Your task to perform on an android device: open the mobile data screen to see how much data has been used Image 0: 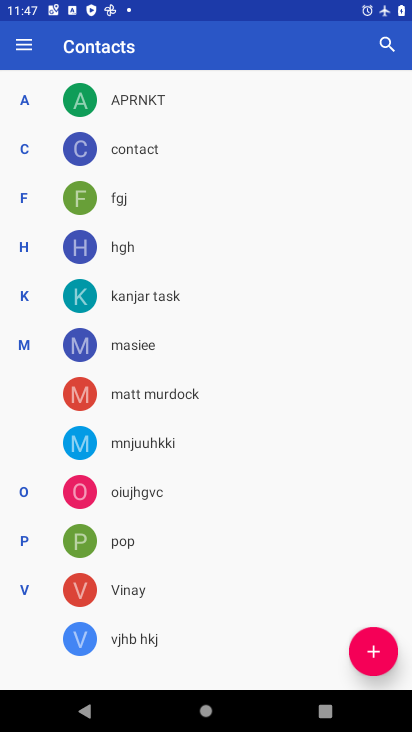
Step 0: press home button
Your task to perform on an android device: open the mobile data screen to see how much data has been used Image 1: 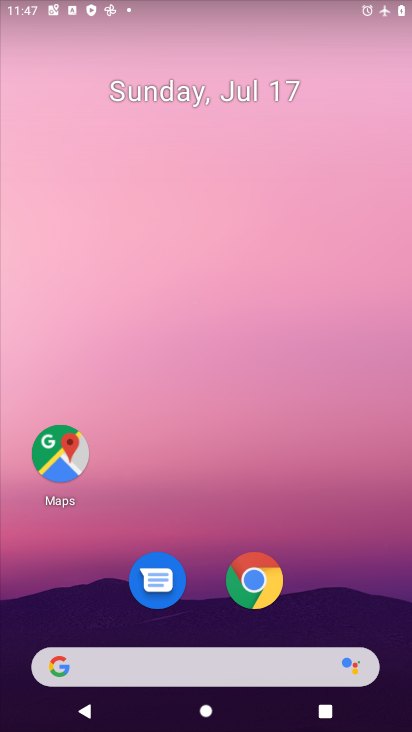
Step 1: drag from (185, 672) to (189, 270)
Your task to perform on an android device: open the mobile data screen to see how much data has been used Image 2: 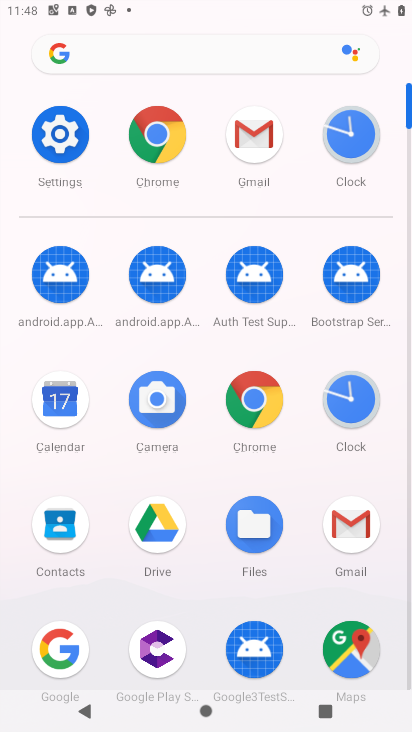
Step 2: click (55, 134)
Your task to perform on an android device: open the mobile data screen to see how much data has been used Image 3: 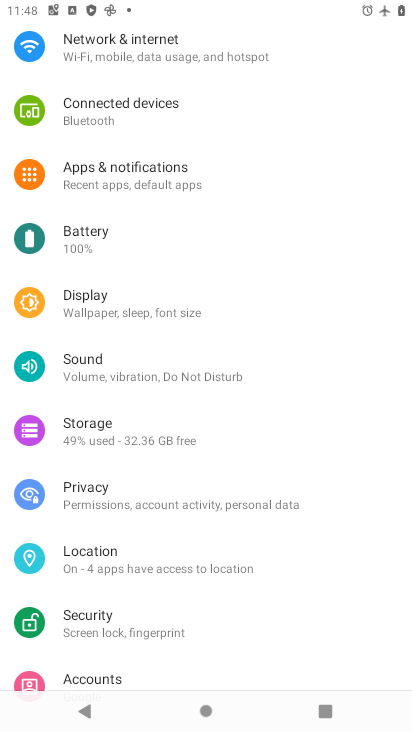
Step 3: drag from (159, 261) to (140, 632)
Your task to perform on an android device: open the mobile data screen to see how much data has been used Image 4: 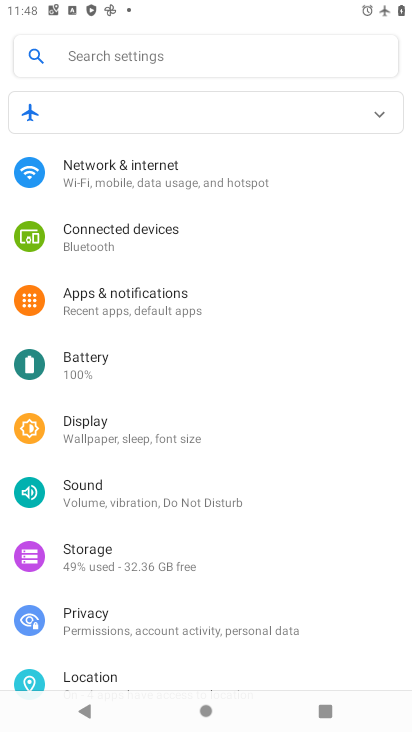
Step 4: click (168, 176)
Your task to perform on an android device: open the mobile data screen to see how much data has been used Image 5: 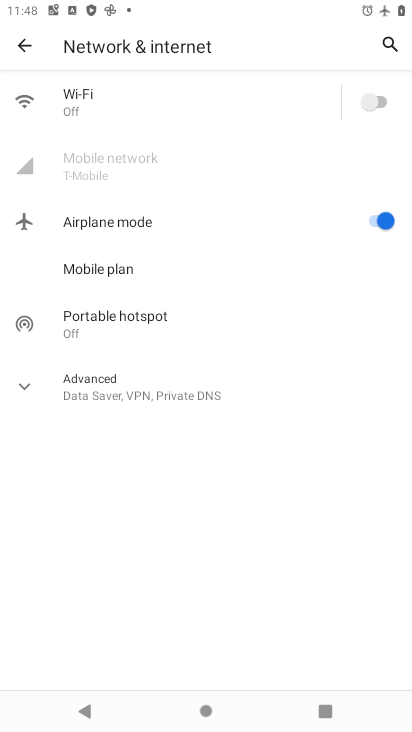
Step 5: click (168, 176)
Your task to perform on an android device: open the mobile data screen to see how much data has been used Image 6: 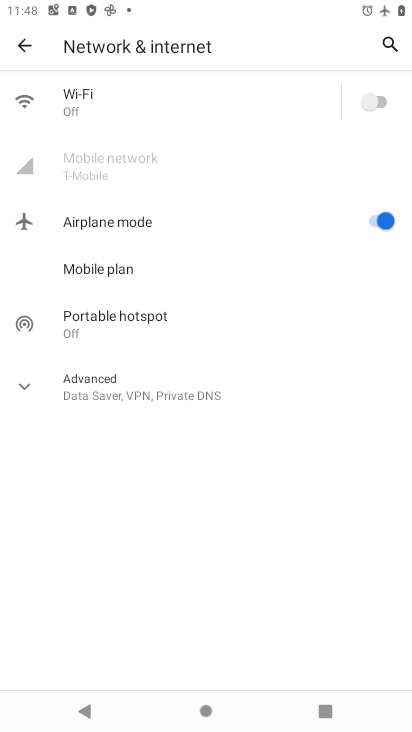
Step 6: click (147, 169)
Your task to perform on an android device: open the mobile data screen to see how much data has been used Image 7: 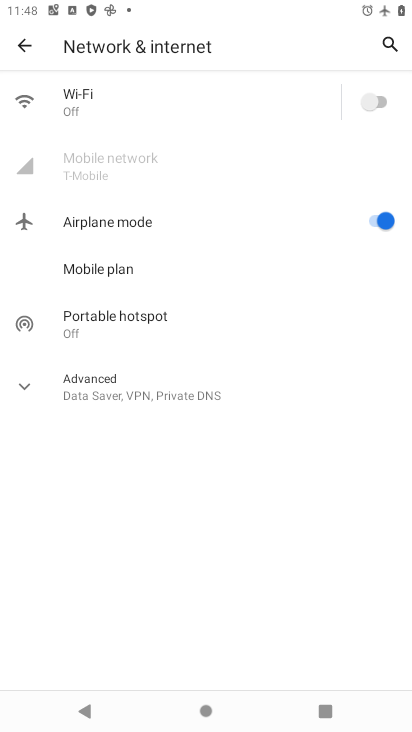
Step 7: task complete